Your task to perform on an android device: Turn off the flashlight Image 0: 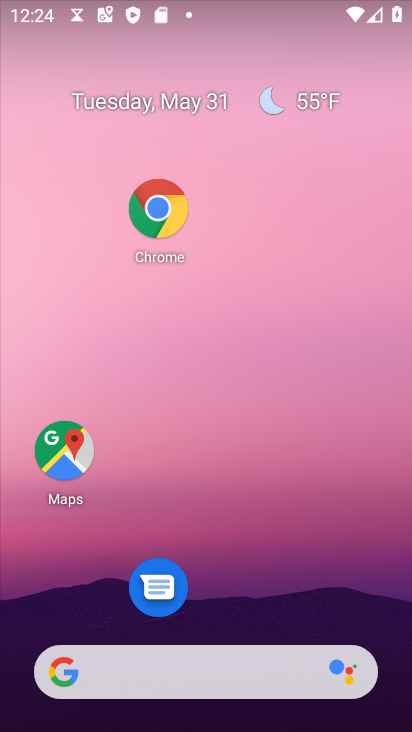
Step 0: drag from (295, 585) to (241, 110)
Your task to perform on an android device: Turn off the flashlight Image 1: 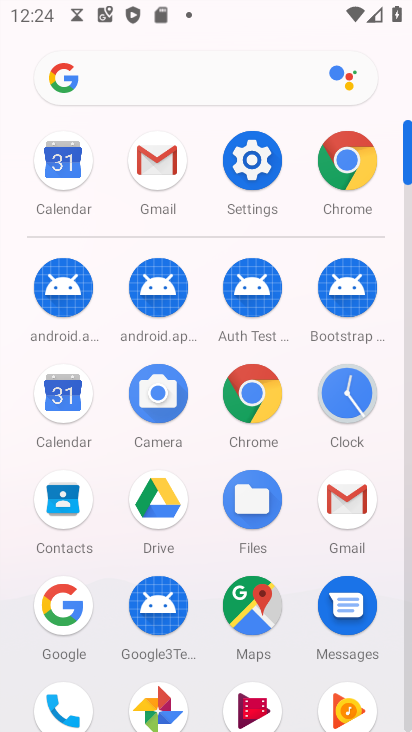
Step 1: click (247, 178)
Your task to perform on an android device: Turn off the flashlight Image 2: 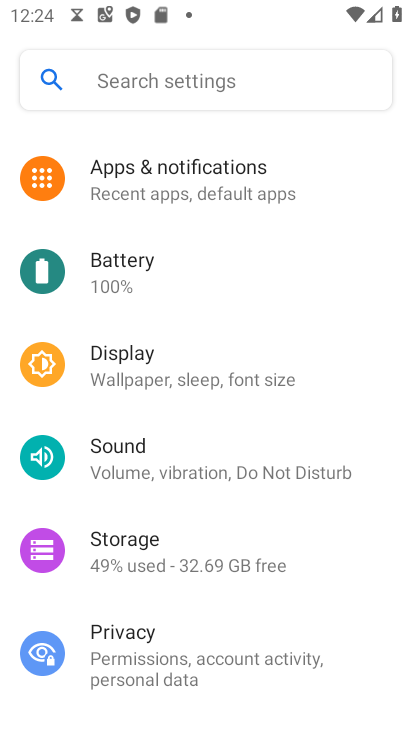
Step 2: click (234, 90)
Your task to perform on an android device: Turn off the flashlight Image 3: 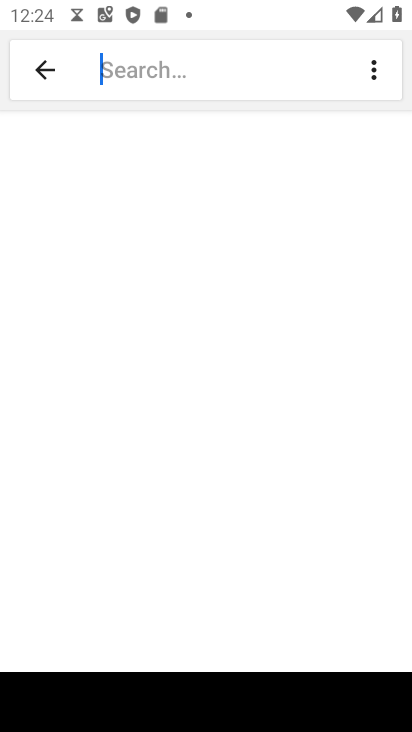
Step 3: click (234, 90)
Your task to perform on an android device: Turn off the flashlight Image 4: 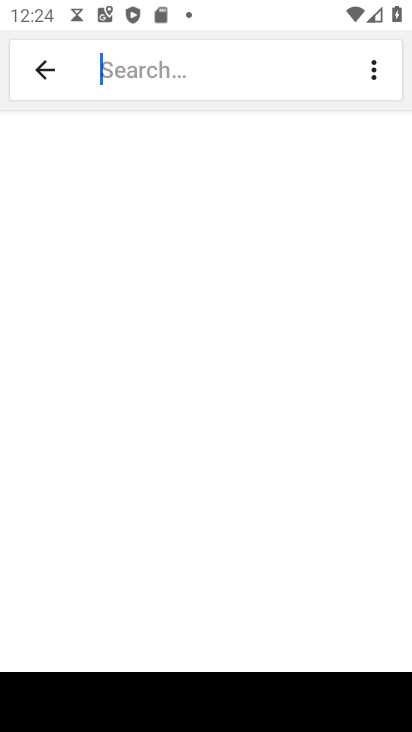
Step 4: type "flashlight"
Your task to perform on an android device: Turn off the flashlight Image 5: 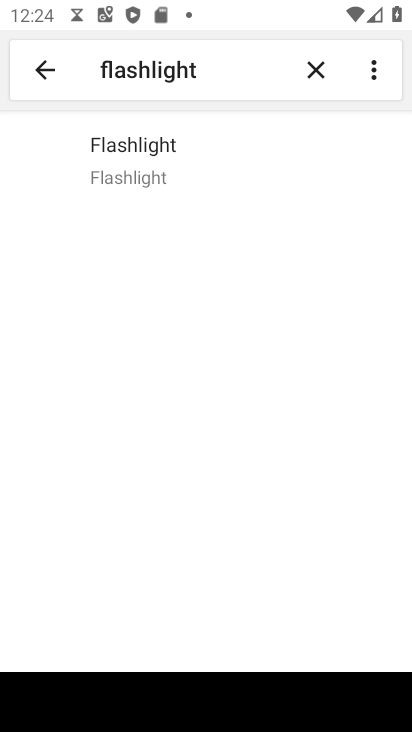
Step 5: click (212, 177)
Your task to perform on an android device: Turn off the flashlight Image 6: 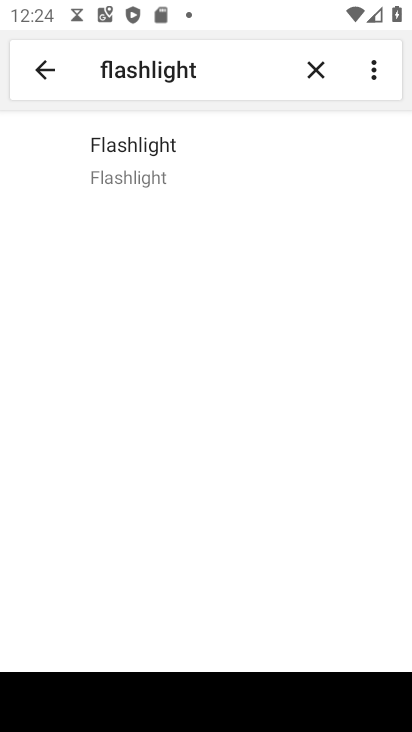
Step 6: click (212, 177)
Your task to perform on an android device: Turn off the flashlight Image 7: 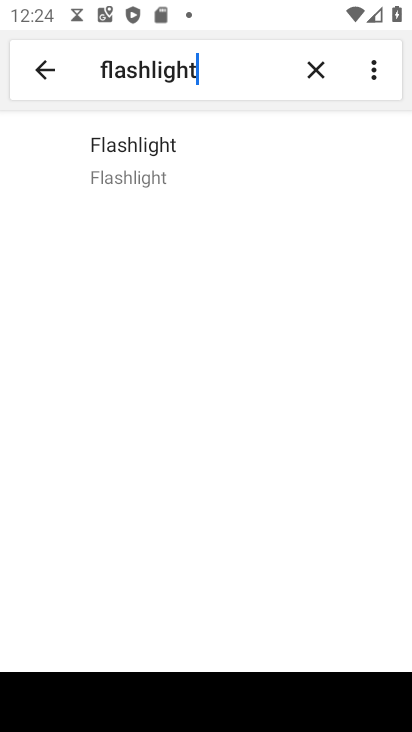
Step 7: click (180, 172)
Your task to perform on an android device: Turn off the flashlight Image 8: 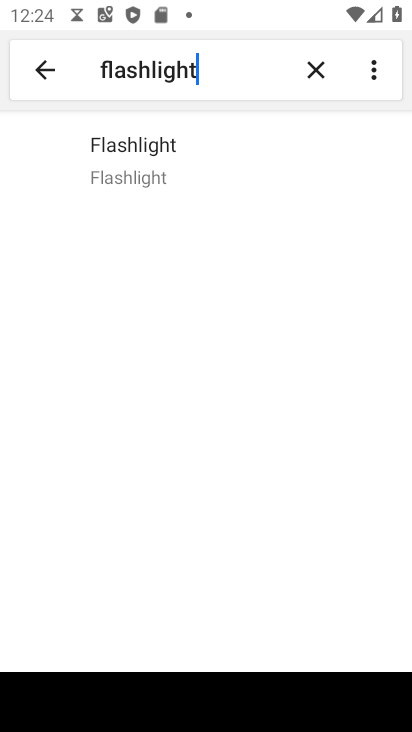
Step 8: task complete